Your task to perform on an android device: allow cookies in the chrome app Image 0: 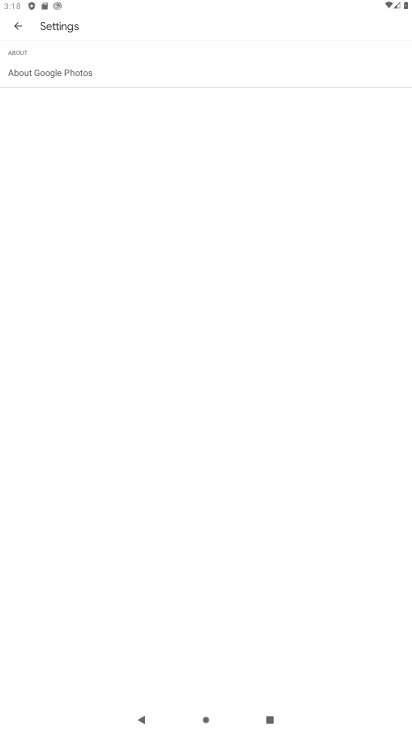
Step 0: press home button
Your task to perform on an android device: allow cookies in the chrome app Image 1: 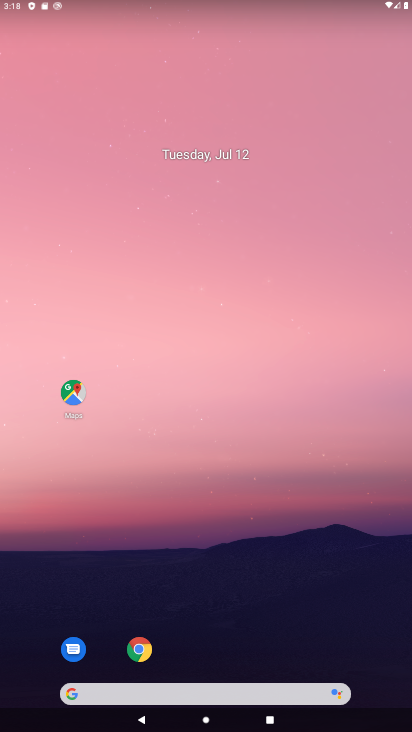
Step 1: click (142, 650)
Your task to perform on an android device: allow cookies in the chrome app Image 2: 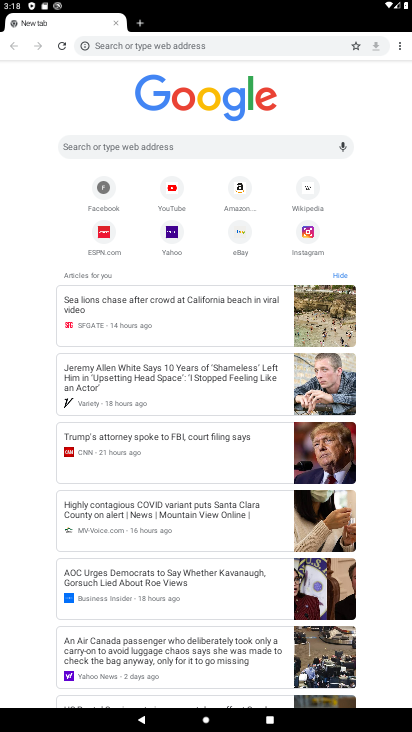
Step 2: click (397, 44)
Your task to perform on an android device: allow cookies in the chrome app Image 3: 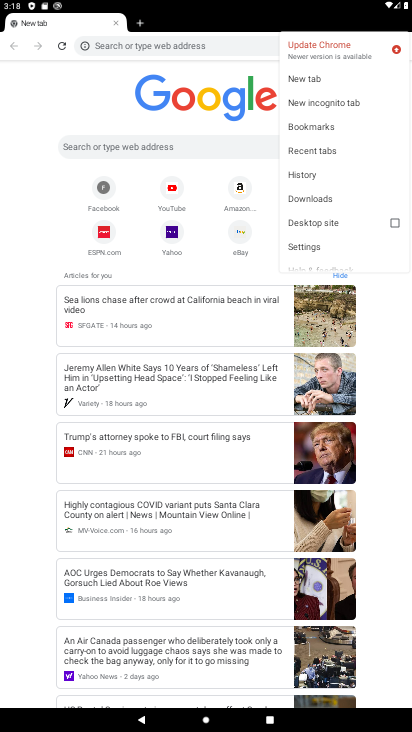
Step 3: click (320, 241)
Your task to perform on an android device: allow cookies in the chrome app Image 4: 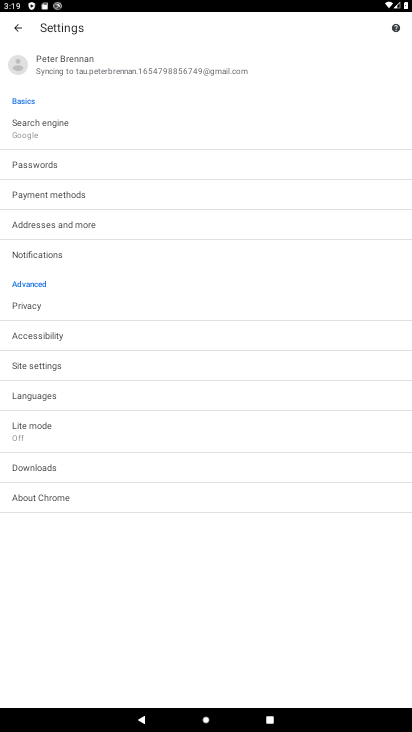
Step 4: click (58, 365)
Your task to perform on an android device: allow cookies in the chrome app Image 5: 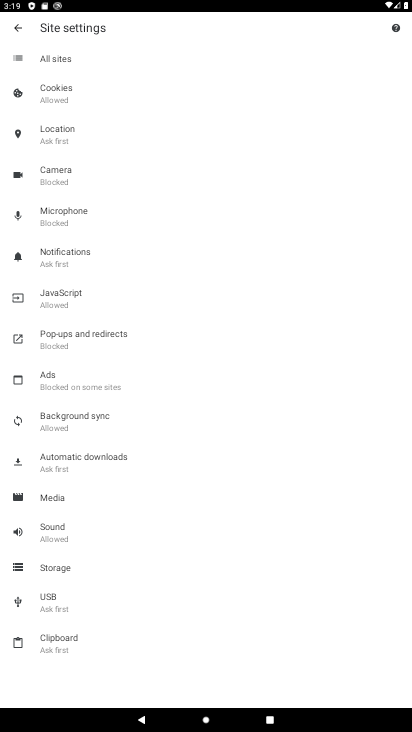
Step 5: click (88, 91)
Your task to perform on an android device: allow cookies in the chrome app Image 6: 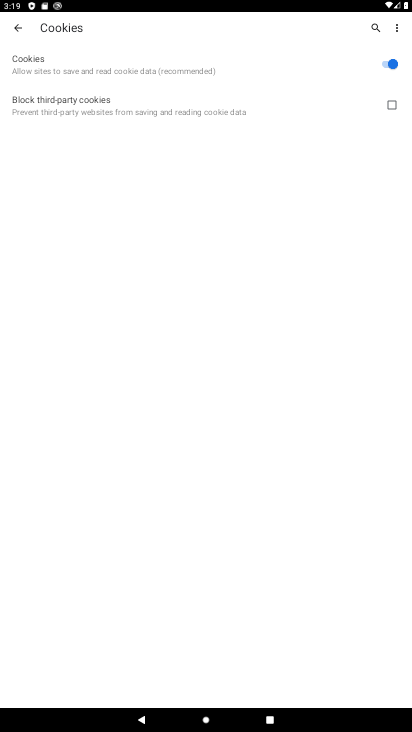
Step 6: task complete